Your task to perform on an android device: Open Google Chrome and click the shortcut for Amazon.com Image 0: 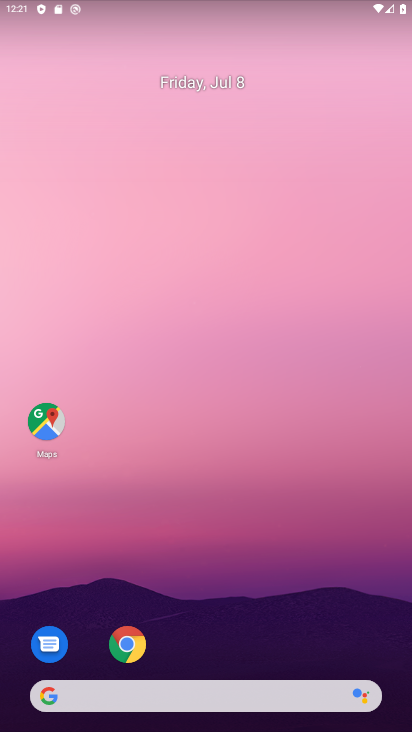
Step 0: click (385, 207)
Your task to perform on an android device: Open Google Chrome and click the shortcut for Amazon.com Image 1: 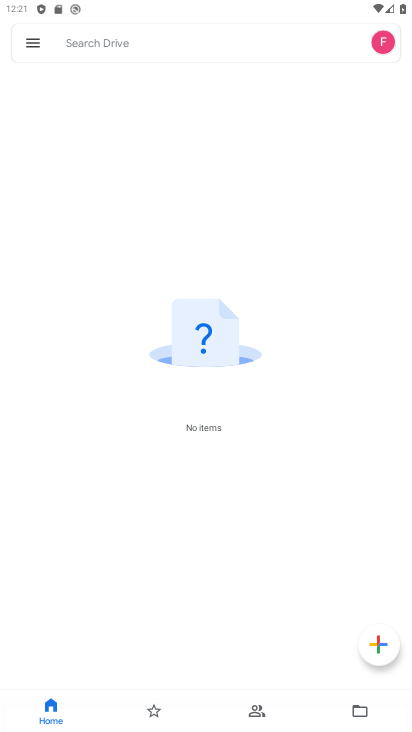
Step 1: click (326, 45)
Your task to perform on an android device: Open Google Chrome and click the shortcut for Amazon.com Image 2: 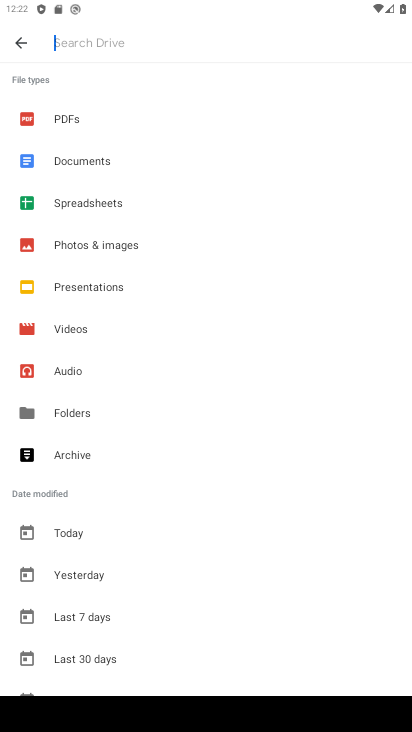
Step 2: press home button
Your task to perform on an android device: Open Google Chrome and click the shortcut for Amazon.com Image 3: 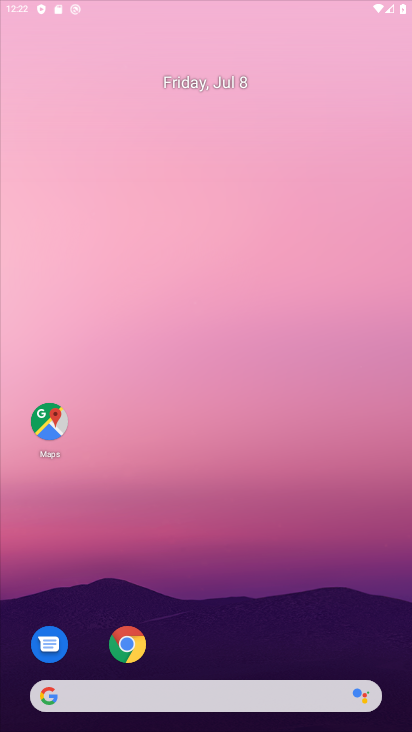
Step 3: drag from (319, 357) to (366, 132)
Your task to perform on an android device: Open Google Chrome and click the shortcut for Amazon.com Image 4: 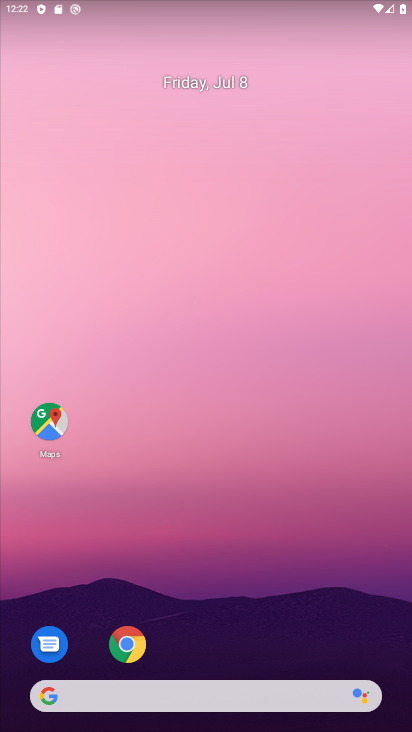
Step 4: drag from (375, 557) to (386, 94)
Your task to perform on an android device: Open Google Chrome and click the shortcut for Amazon.com Image 5: 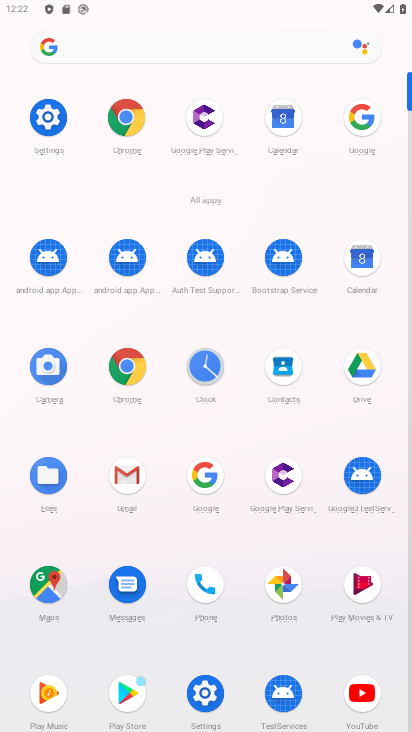
Step 5: click (138, 378)
Your task to perform on an android device: Open Google Chrome and click the shortcut for Amazon.com Image 6: 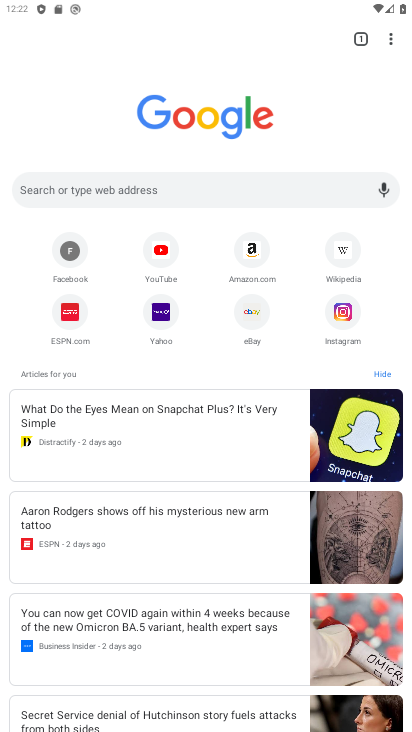
Step 6: click (256, 251)
Your task to perform on an android device: Open Google Chrome and click the shortcut for Amazon.com Image 7: 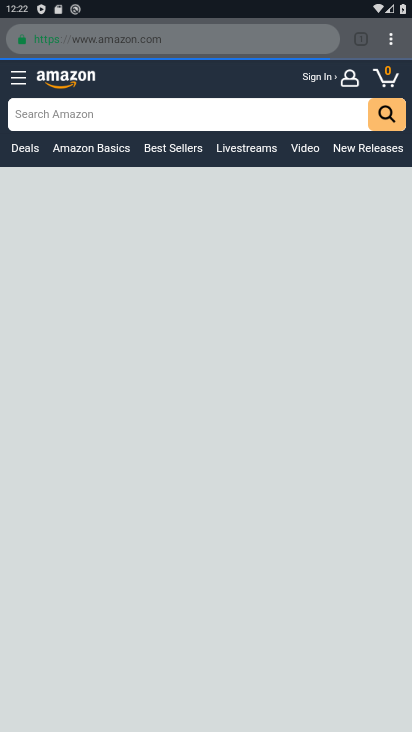
Step 7: drag from (411, 43) to (290, 362)
Your task to perform on an android device: Open Google Chrome and click the shortcut for Amazon.com Image 8: 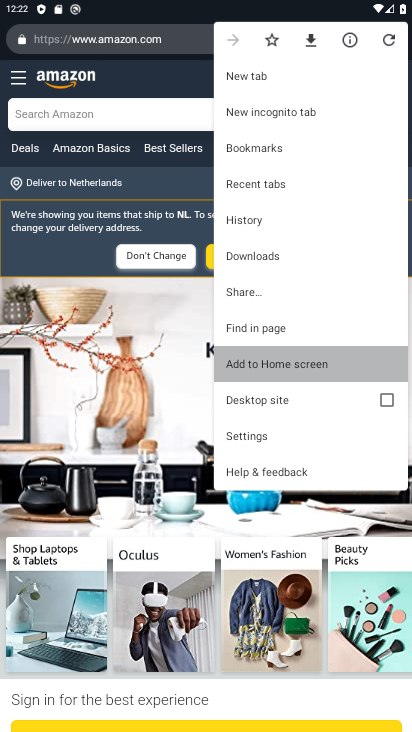
Step 8: click (290, 362)
Your task to perform on an android device: Open Google Chrome and click the shortcut for Amazon.com Image 9: 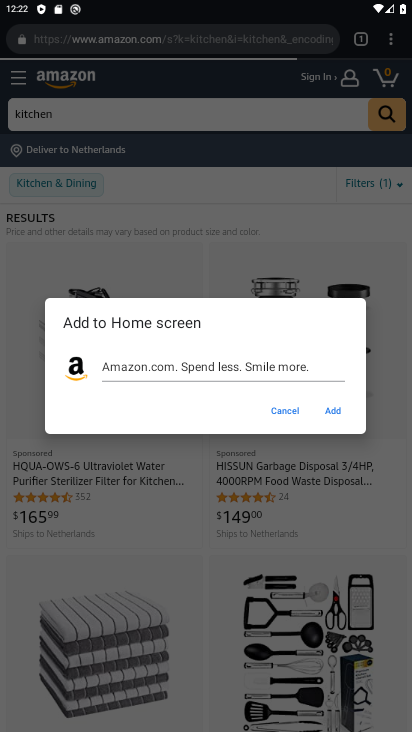
Step 9: click (331, 410)
Your task to perform on an android device: Open Google Chrome and click the shortcut for Amazon.com Image 10: 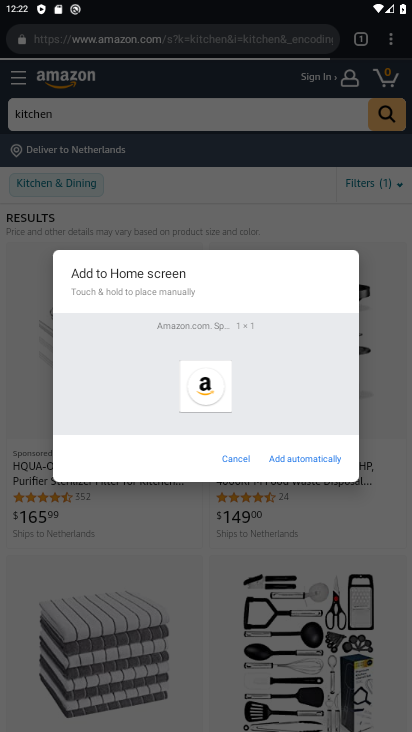
Step 10: task complete